Your task to perform on an android device: remove spam from my inbox in the gmail app Image 0: 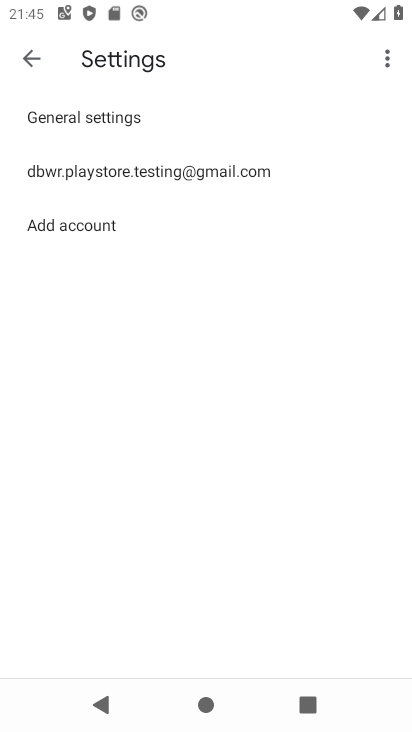
Step 0: press home button
Your task to perform on an android device: remove spam from my inbox in the gmail app Image 1: 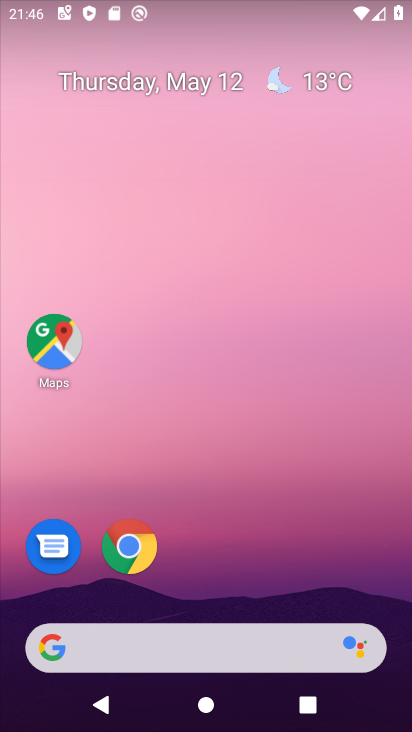
Step 1: drag from (331, 498) to (382, 57)
Your task to perform on an android device: remove spam from my inbox in the gmail app Image 2: 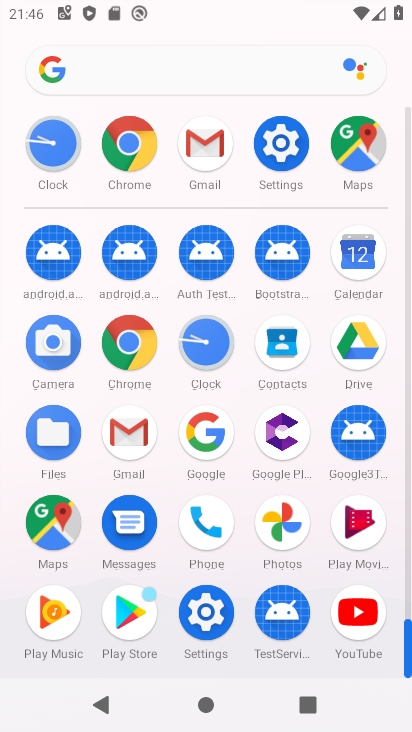
Step 2: click (191, 142)
Your task to perform on an android device: remove spam from my inbox in the gmail app Image 3: 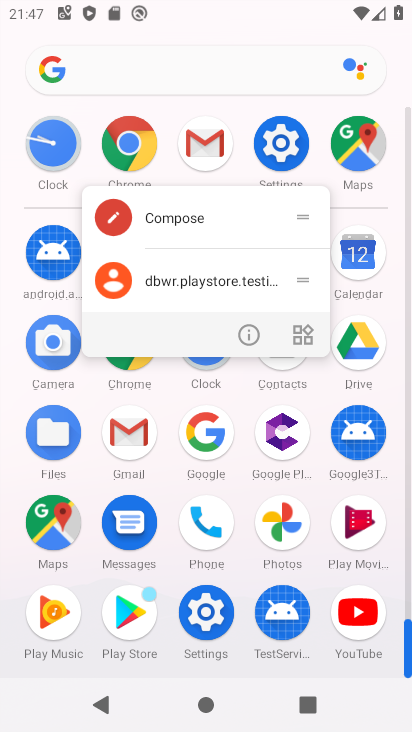
Step 3: click (117, 428)
Your task to perform on an android device: remove spam from my inbox in the gmail app Image 4: 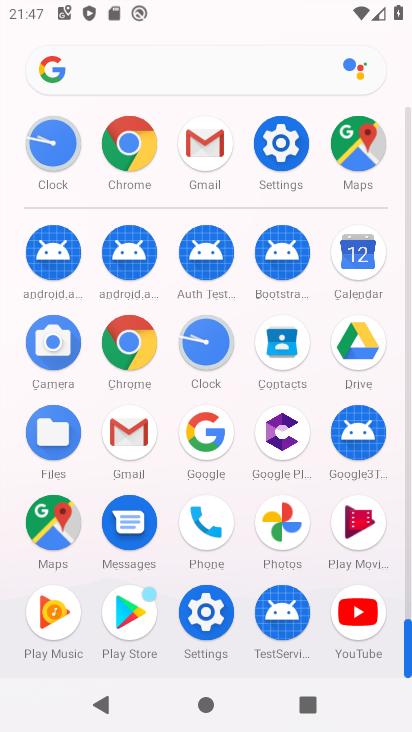
Step 4: click (116, 428)
Your task to perform on an android device: remove spam from my inbox in the gmail app Image 5: 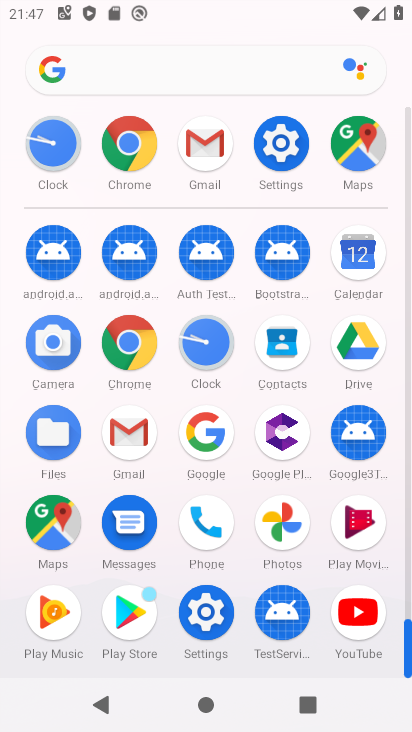
Step 5: click (116, 428)
Your task to perform on an android device: remove spam from my inbox in the gmail app Image 6: 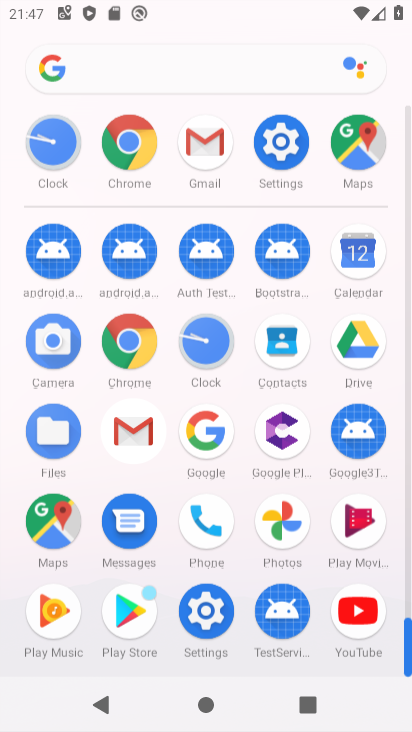
Step 6: click (116, 428)
Your task to perform on an android device: remove spam from my inbox in the gmail app Image 7: 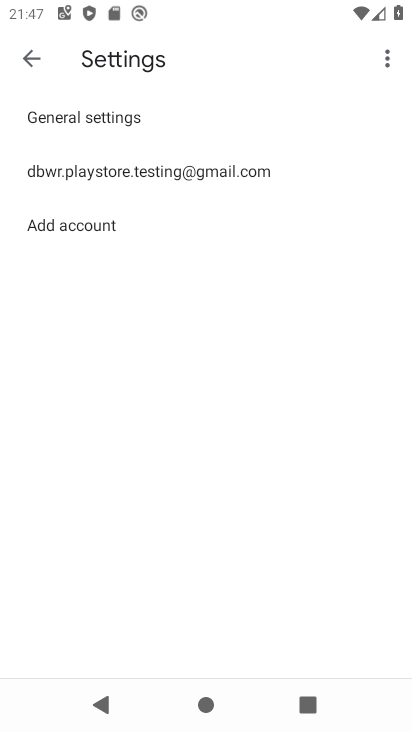
Step 7: click (159, 181)
Your task to perform on an android device: remove spam from my inbox in the gmail app Image 8: 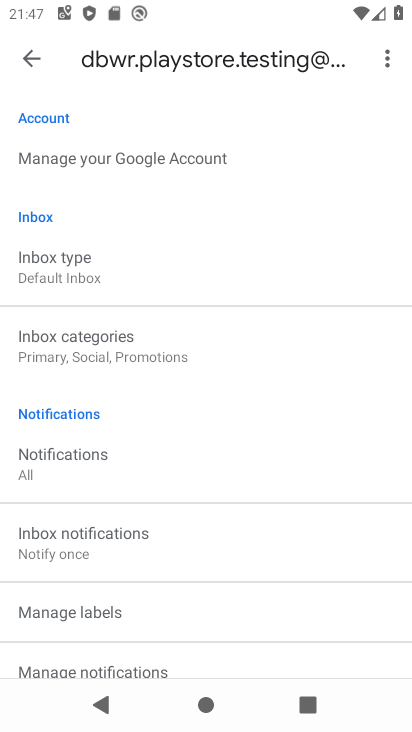
Step 8: click (121, 372)
Your task to perform on an android device: remove spam from my inbox in the gmail app Image 9: 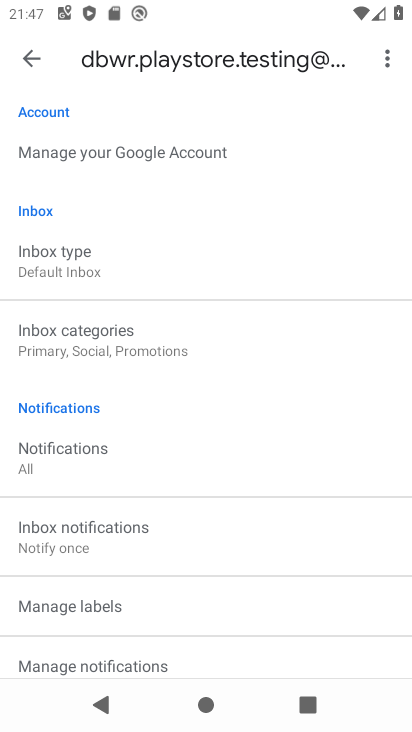
Step 9: task complete